Your task to perform on an android device: allow notifications from all sites in the chrome app Image 0: 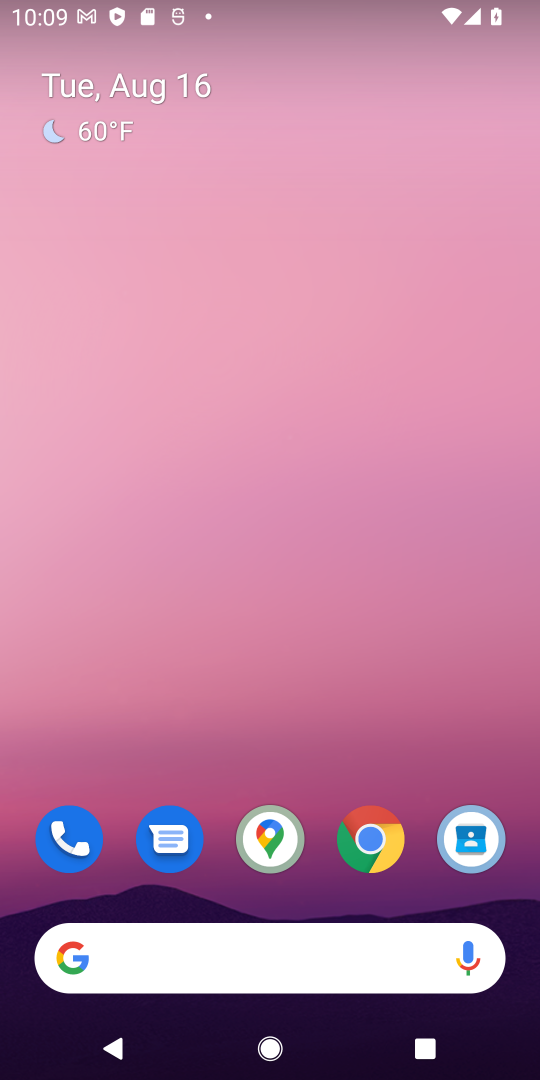
Step 0: click (375, 815)
Your task to perform on an android device: allow notifications from all sites in the chrome app Image 1: 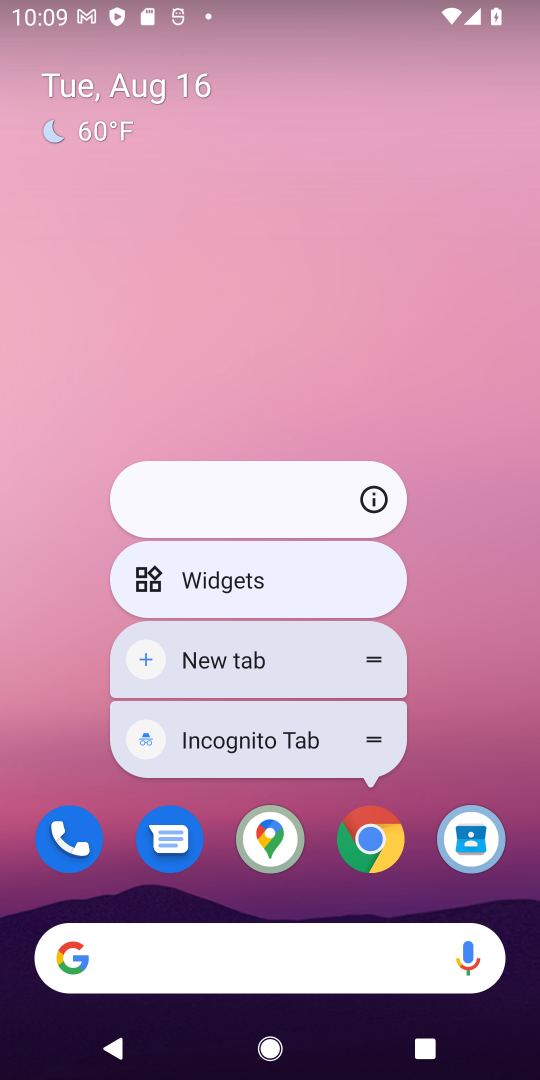
Step 1: click (370, 829)
Your task to perform on an android device: allow notifications from all sites in the chrome app Image 2: 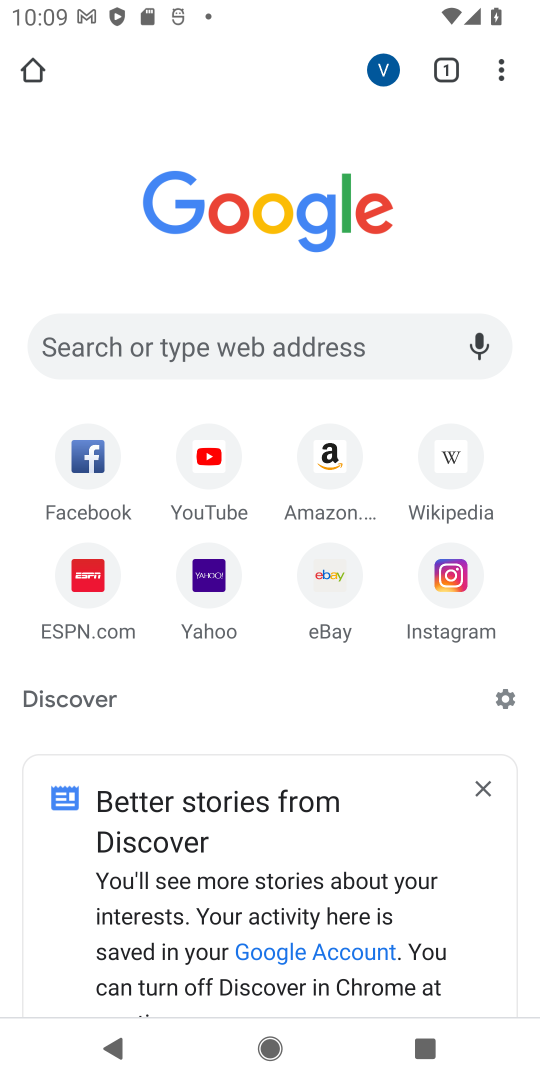
Step 2: click (489, 54)
Your task to perform on an android device: allow notifications from all sites in the chrome app Image 3: 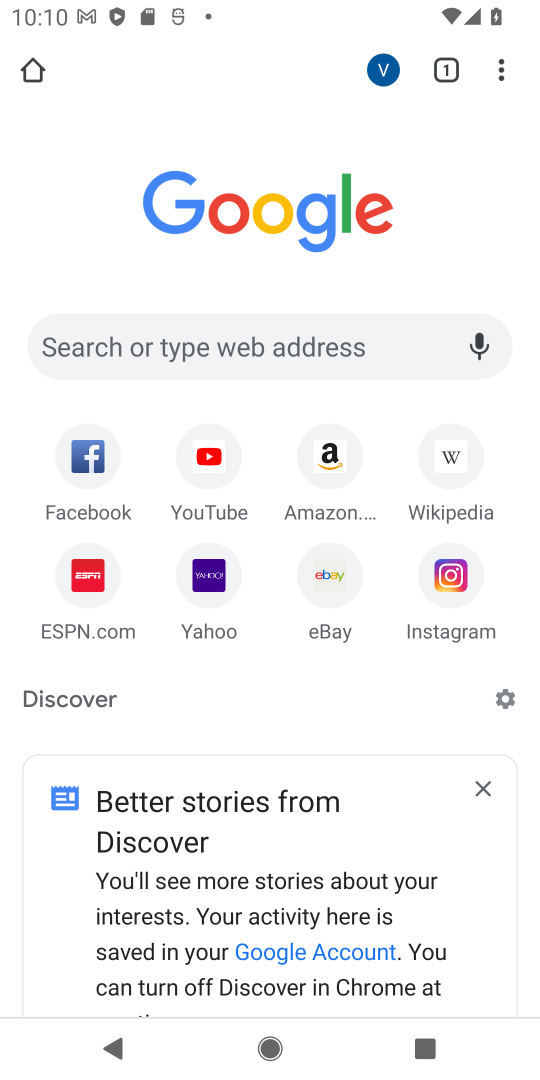
Step 3: click (489, 69)
Your task to perform on an android device: allow notifications from all sites in the chrome app Image 4: 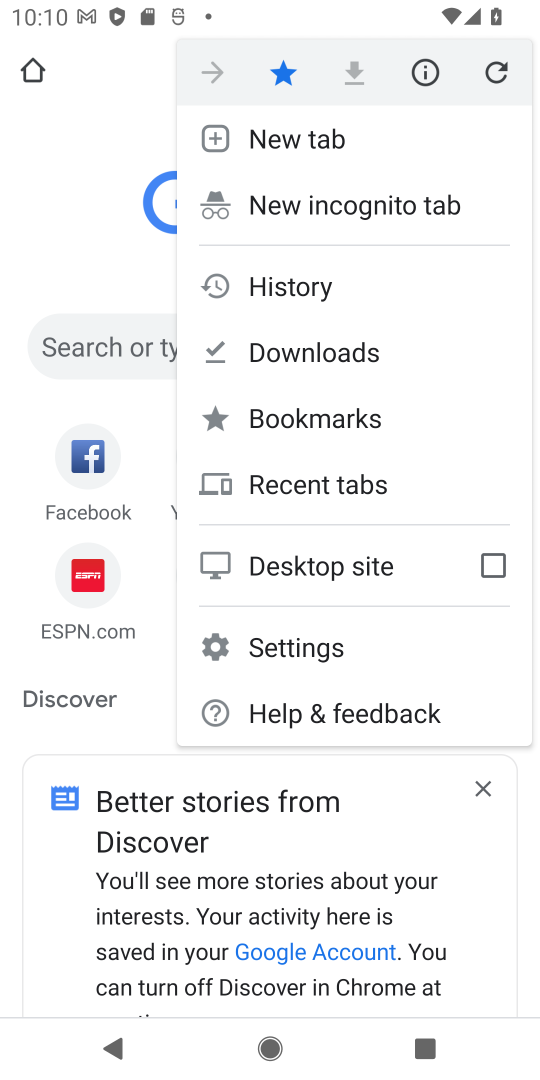
Step 4: click (318, 640)
Your task to perform on an android device: allow notifications from all sites in the chrome app Image 5: 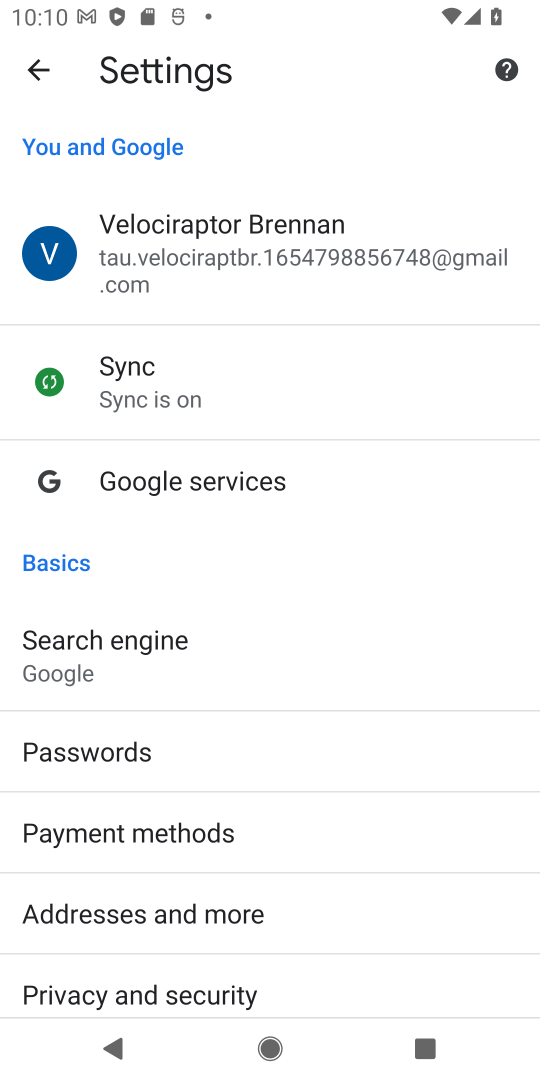
Step 5: drag from (199, 874) to (212, 447)
Your task to perform on an android device: allow notifications from all sites in the chrome app Image 6: 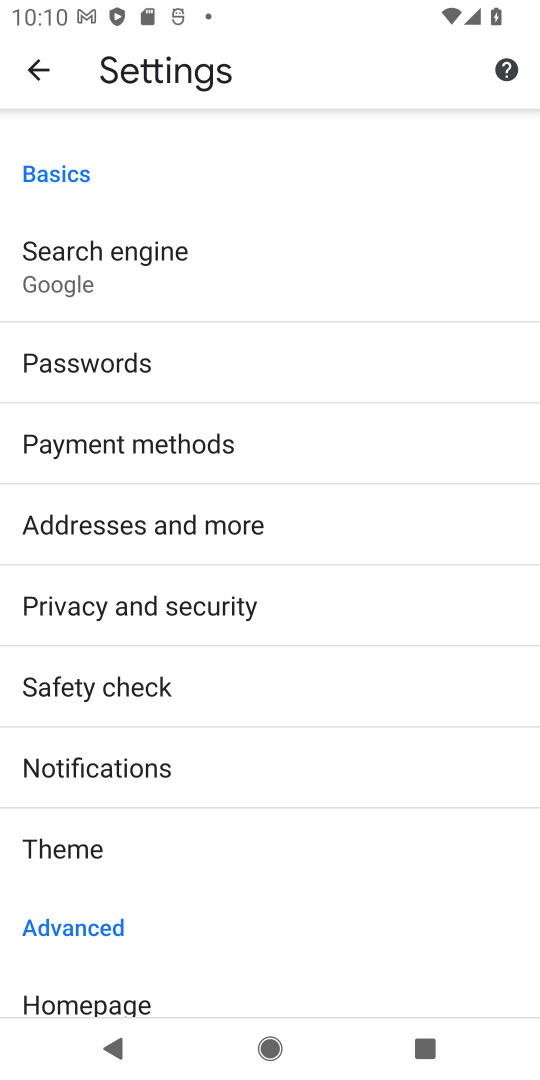
Step 6: drag from (206, 859) to (204, 291)
Your task to perform on an android device: allow notifications from all sites in the chrome app Image 7: 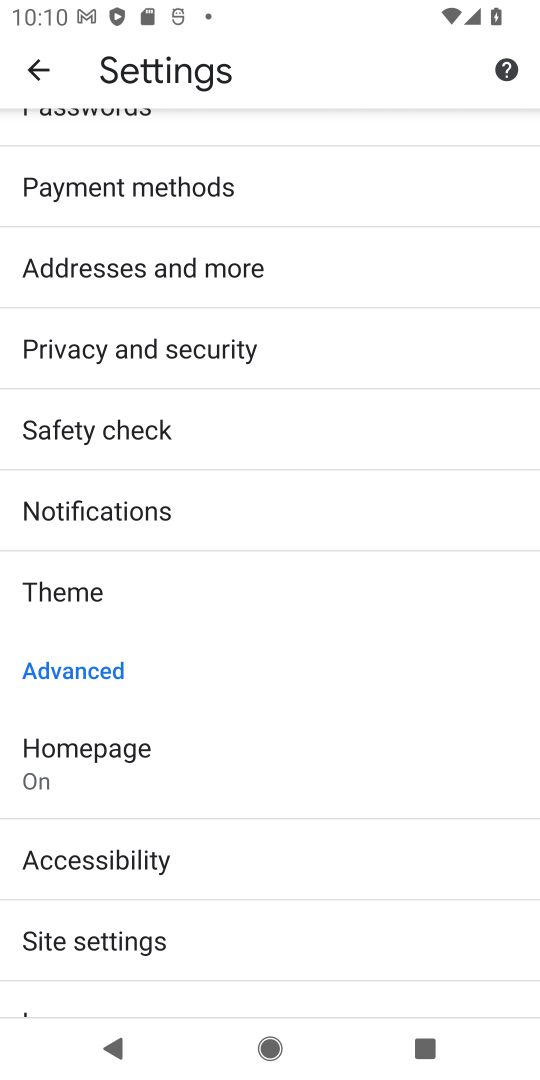
Step 7: drag from (159, 891) to (186, 581)
Your task to perform on an android device: allow notifications from all sites in the chrome app Image 8: 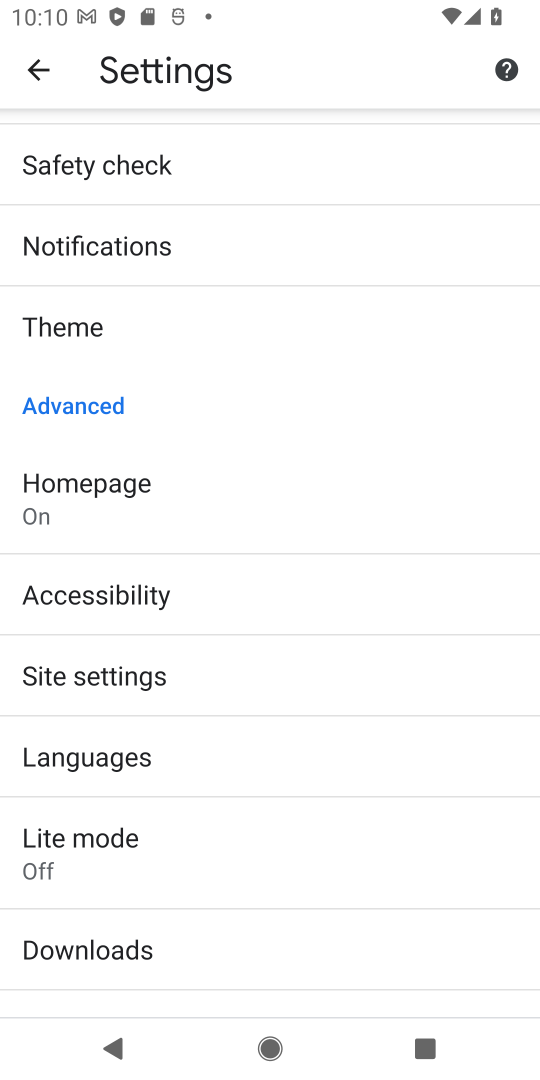
Step 8: drag from (123, 872) to (123, 609)
Your task to perform on an android device: allow notifications from all sites in the chrome app Image 9: 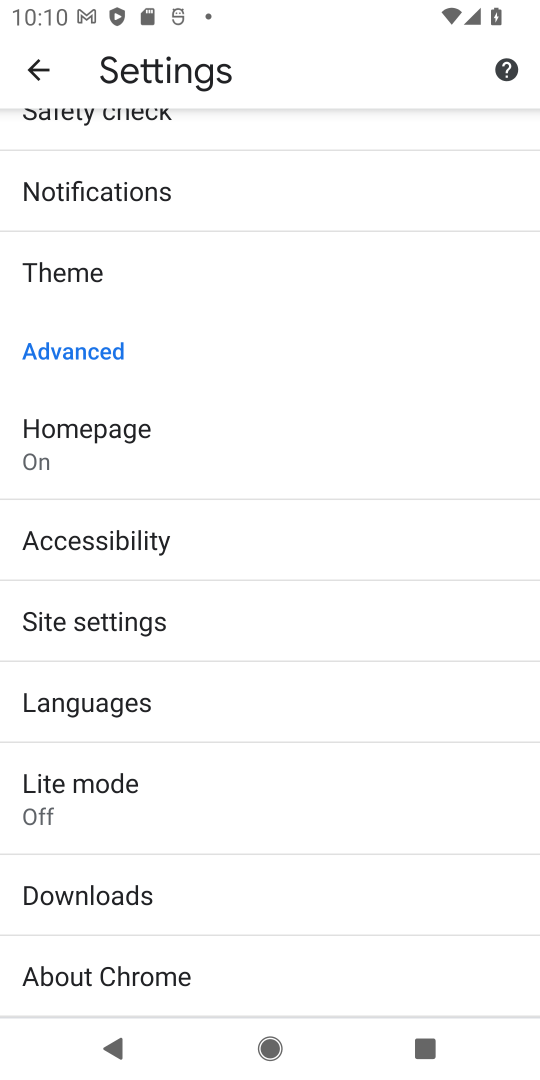
Step 9: click (93, 190)
Your task to perform on an android device: allow notifications from all sites in the chrome app Image 10: 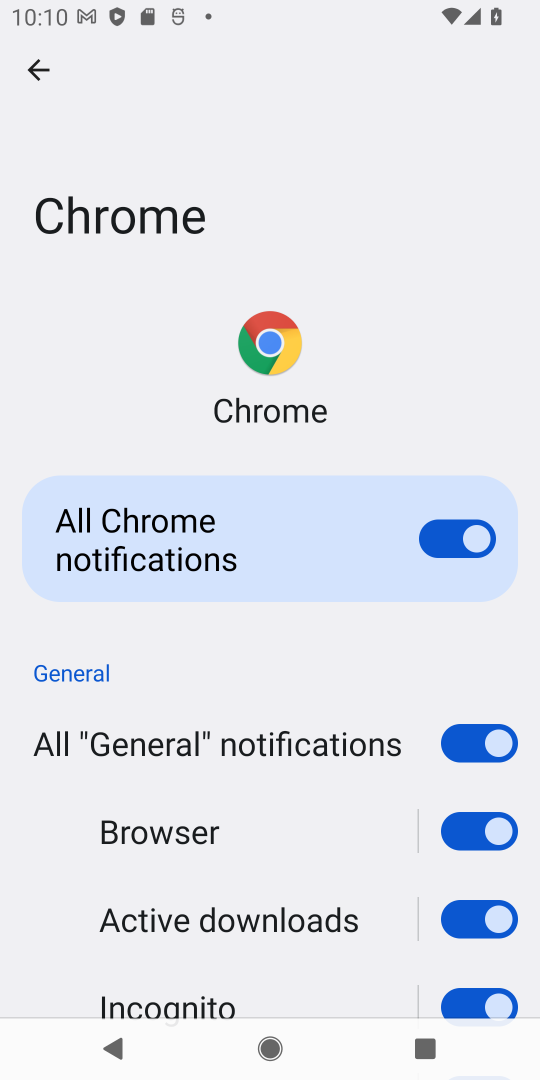
Step 10: task complete